Your task to perform on an android device: Go to battery settings Image 0: 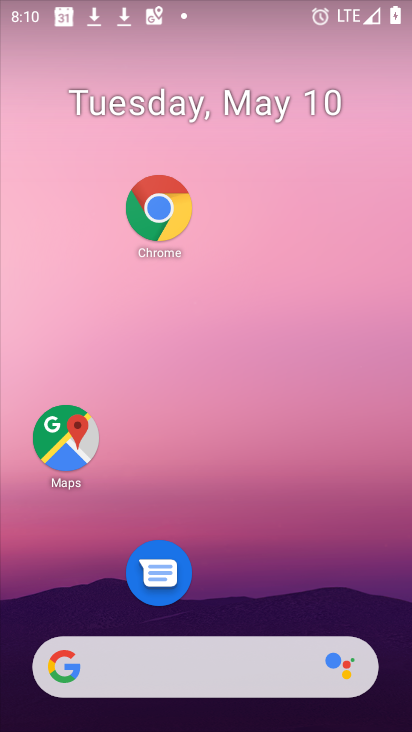
Step 0: drag from (292, 694) to (370, 138)
Your task to perform on an android device: Go to battery settings Image 1: 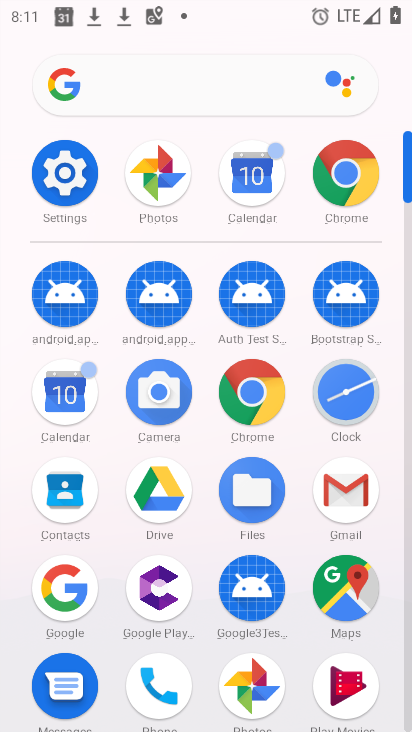
Step 1: click (68, 171)
Your task to perform on an android device: Go to battery settings Image 2: 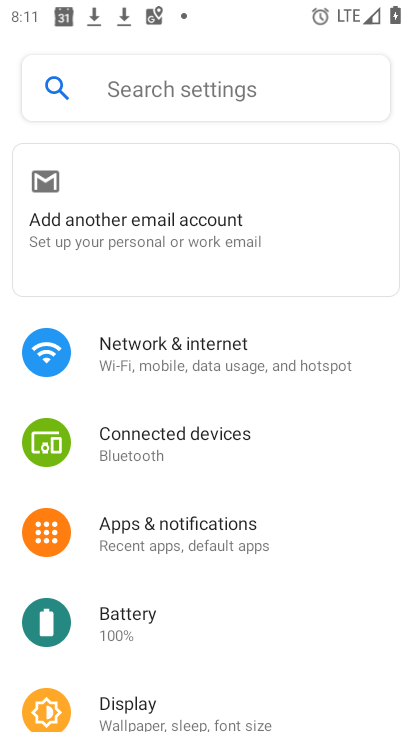
Step 2: click (137, 612)
Your task to perform on an android device: Go to battery settings Image 3: 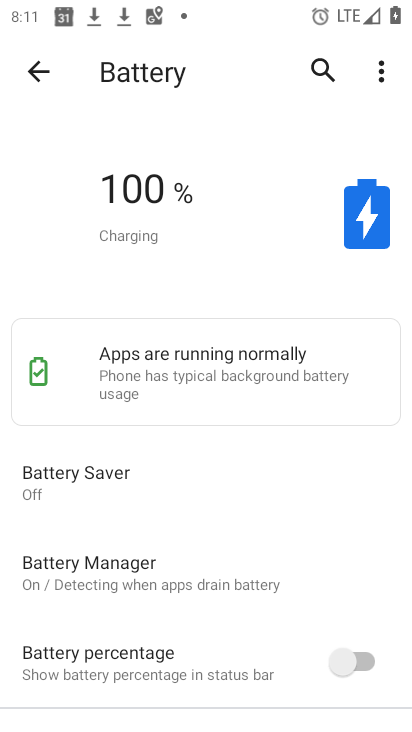
Step 3: task complete